Your task to perform on an android device: set the timer Image 0: 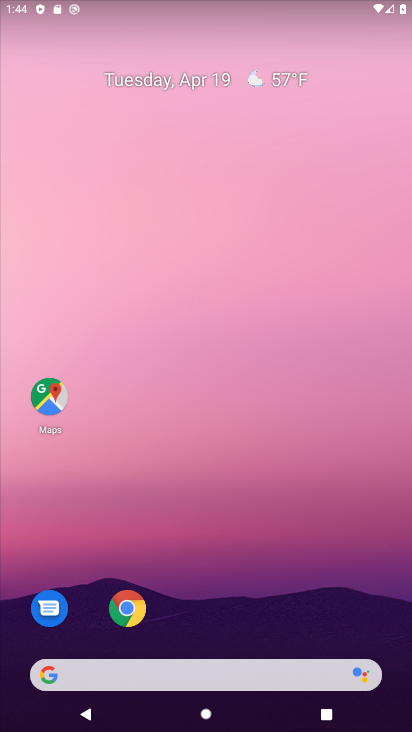
Step 0: drag from (243, 401) to (139, 172)
Your task to perform on an android device: set the timer Image 1: 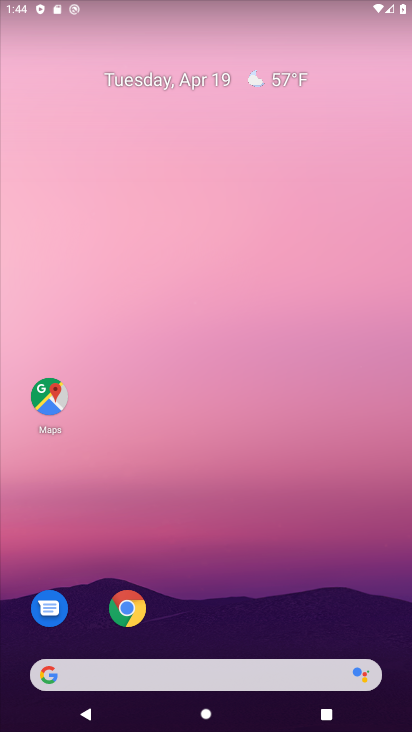
Step 1: drag from (192, 624) to (37, 9)
Your task to perform on an android device: set the timer Image 2: 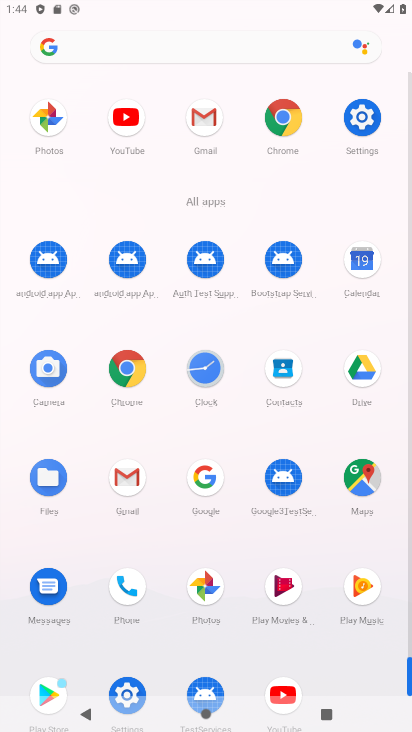
Step 2: click (200, 370)
Your task to perform on an android device: set the timer Image 3: 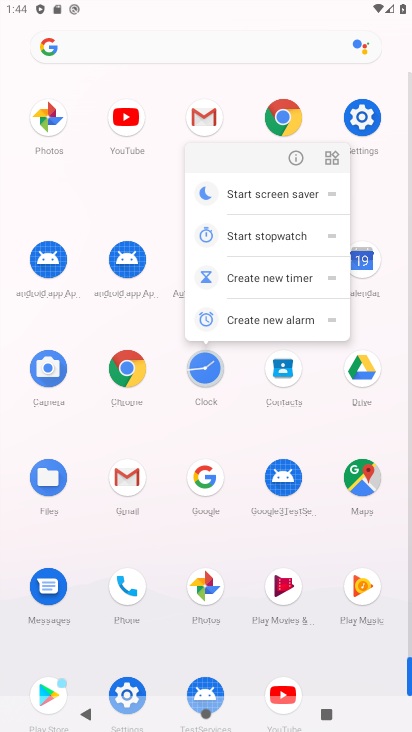
Step 3: click (239, 275)
Your task to perform on an android device: set the timer Image 4: 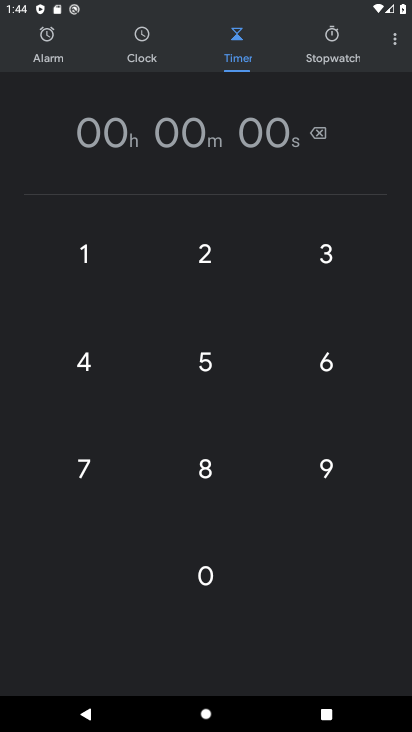
Step 4: click (202, 238)
Your task to perform on an android device: set the timer Image 5: 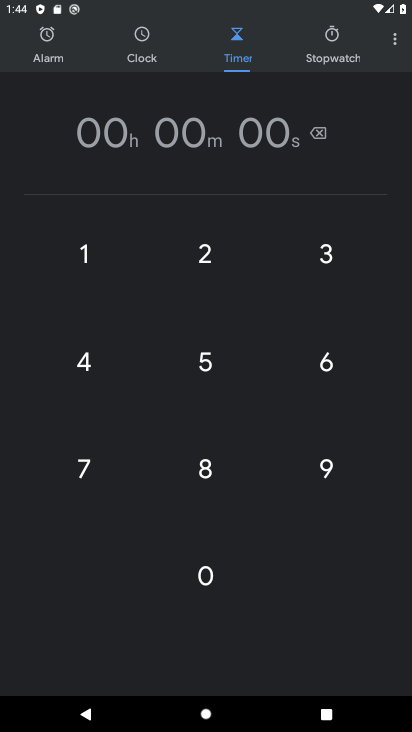
Step 5: click (210, 332)
Your task to perform on an android device: set the timer Image 6: 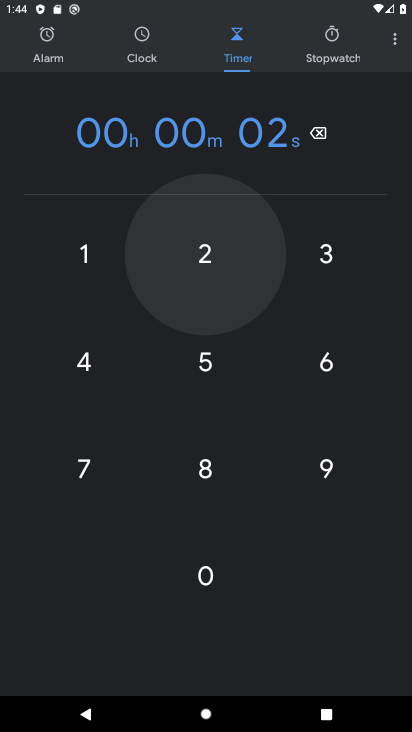
Step 6: drag from (176, 328) to (234, 334)
Your task to perform on an android device: set the timer Image 7: 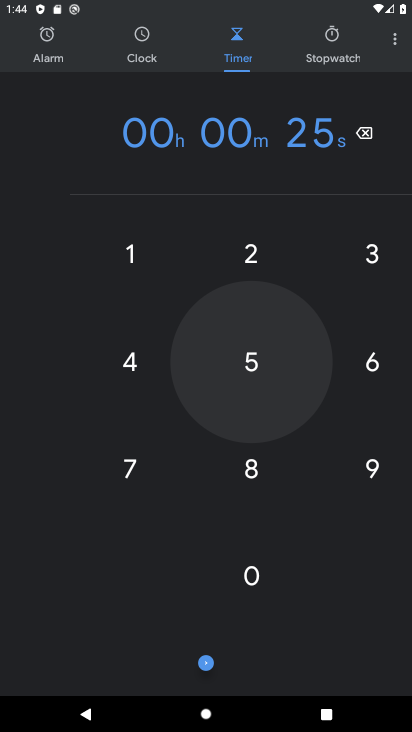
Step 7: click (277, 336)
Your task to perform on an android device: set the timer Image 8: 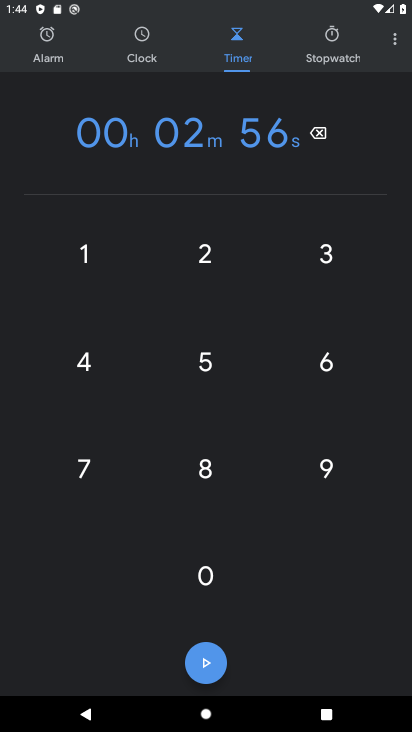
Step 8: drag from (194, 343) to (124, 358)
Your task to perform on an android device: set the timer Image 9: 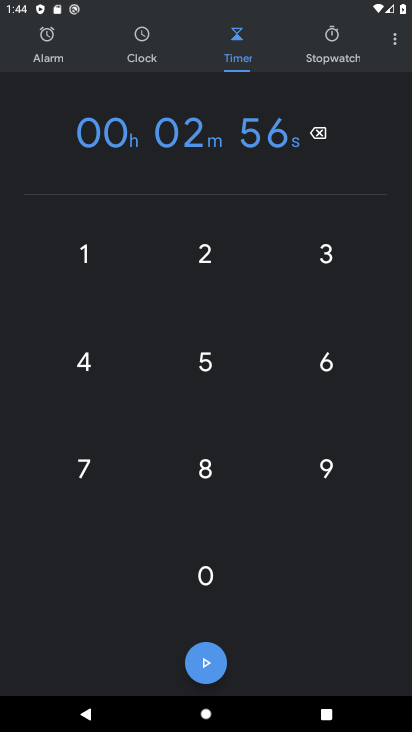
Step 9: click (187, 434)
Your task to perform on an android device: set the timer Image 10: 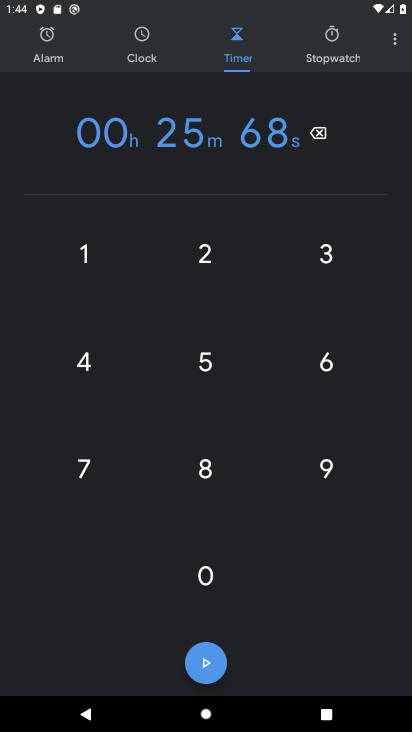
Step 10: click (211, 663)
Your task to perform on an android device: set the timer Image 11: 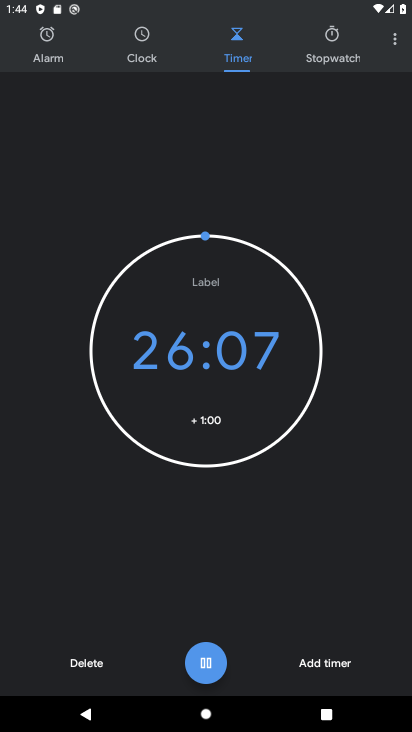
Step 11: click (314, 666)
Your task to perform on an android device: set the timer Image 12: 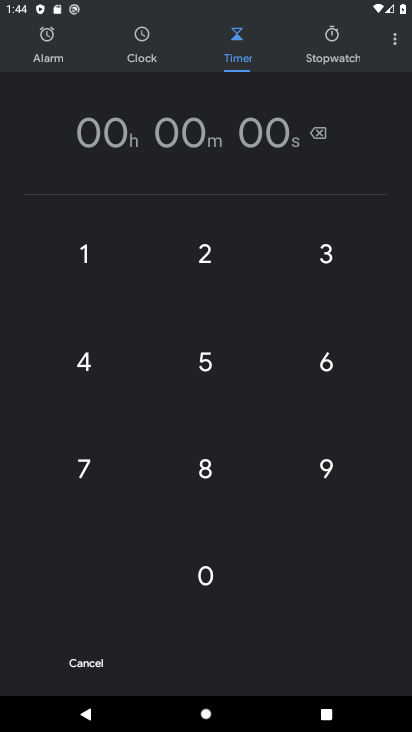
Step 12: task complete